Your task to perform on an android device: turn off airplane mode Image 0: 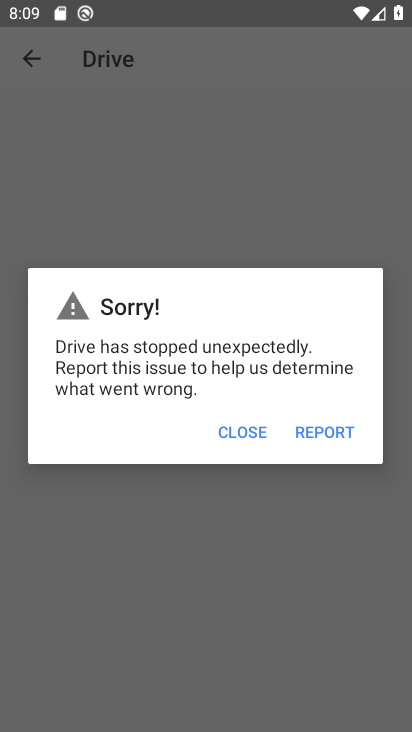
Step 0: press home button
Your task to perform on an android device: turn off airplane mode Image 1: 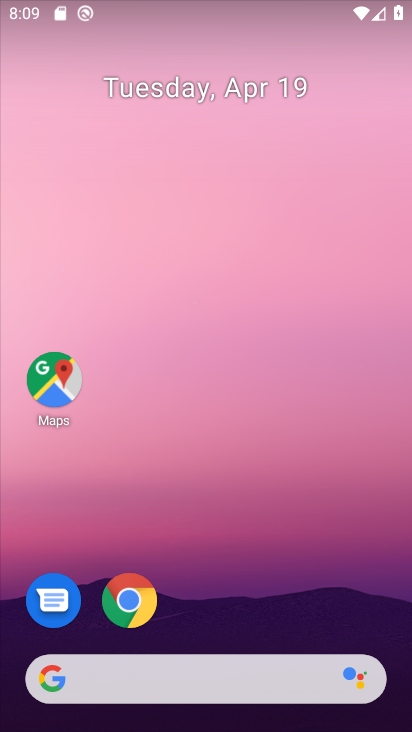
Step 1: drag from (368, 596) to (339, 58)
Your task to perform on an android device: turn off airplane mode Image 2: 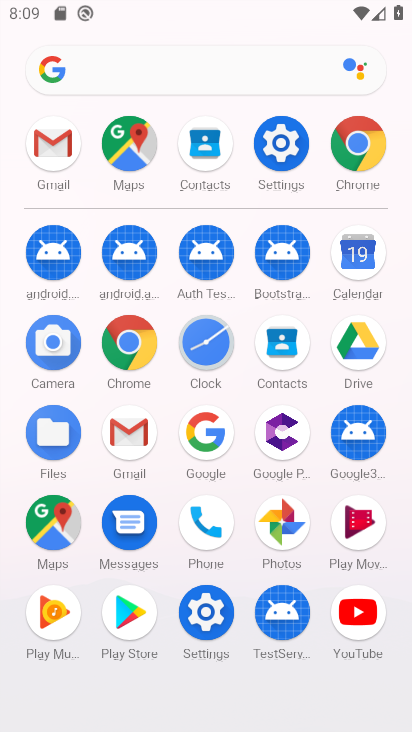
Step 2: click (284, 154)
Your task to perform on an android device: turn off airplane mode Image 3: 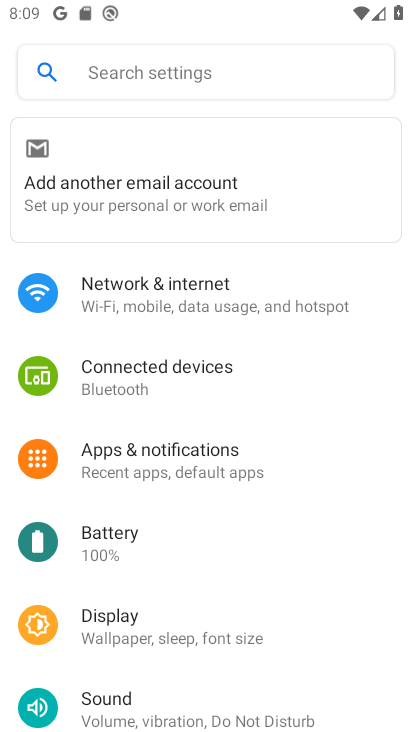
Step 3: drag from (365, 594) to (358, 392)
Your task to perform on an android device: turn off airplane mode Image 4: 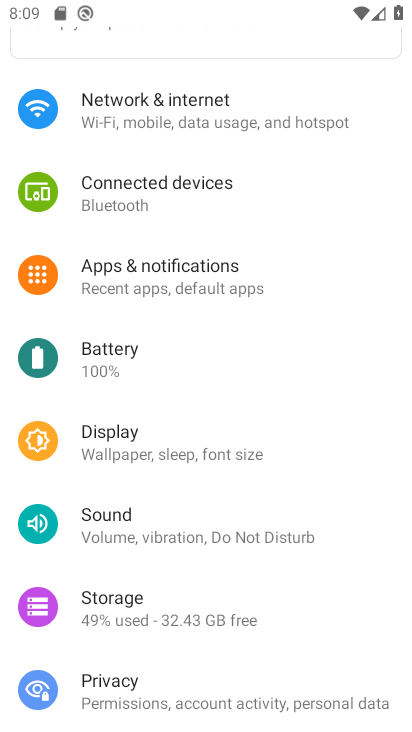
Step 4: drag from (361, 548) to (363, 375)
Your task to perform on an android device: turn off airplane mode Image 5: 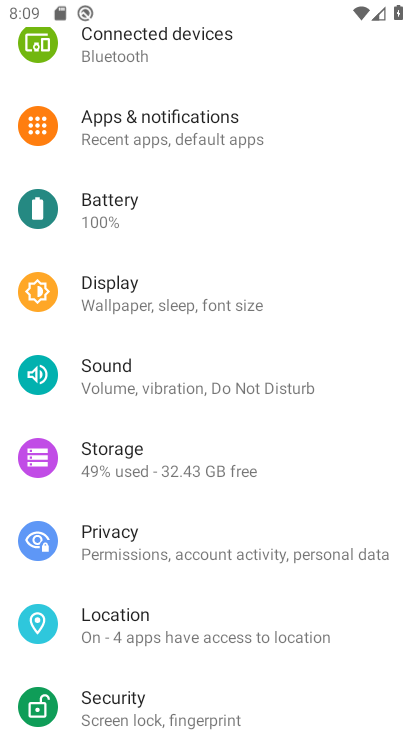
Step 5: drag from (361, 524) to (368, 342)
Your task to perform on an android device: turn off airplane mode Image 6: 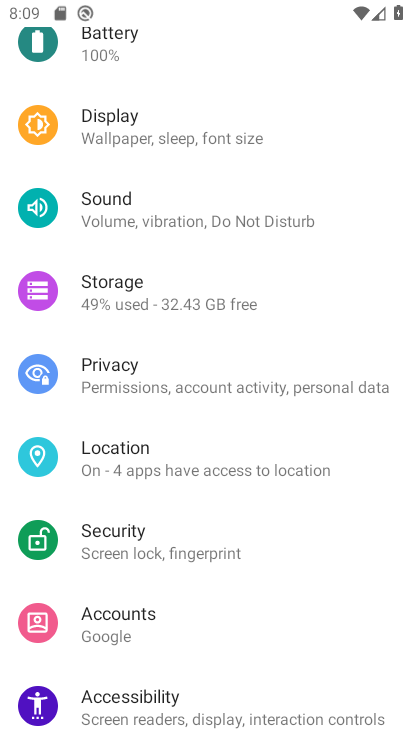
Step 6: drag from (371, 603) to (373, 334)
Your task to perform on an android device: turn off airplane mode Image 7: 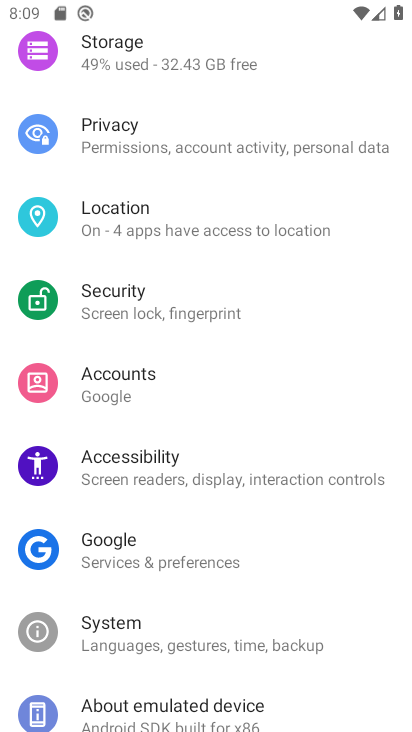
Step 7: drag from (375, 408) to (372, 586)
Your task to perform on an android device: turn off airplane mode Image 8: 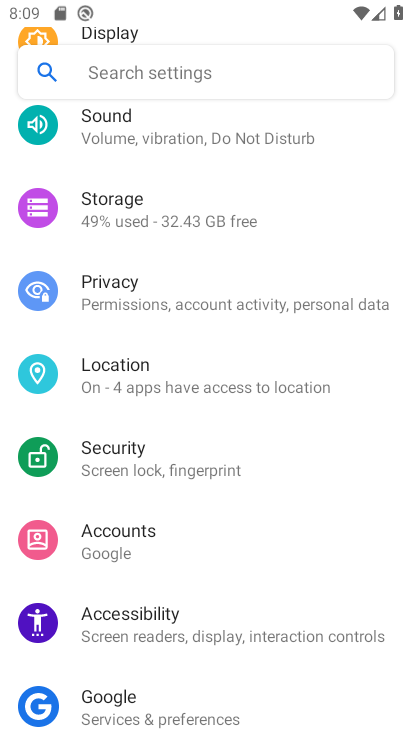
Step 8: drag from (359, 426) to (359, 581)
Your task to perform on an android device: turn off airplane mode Image 9: 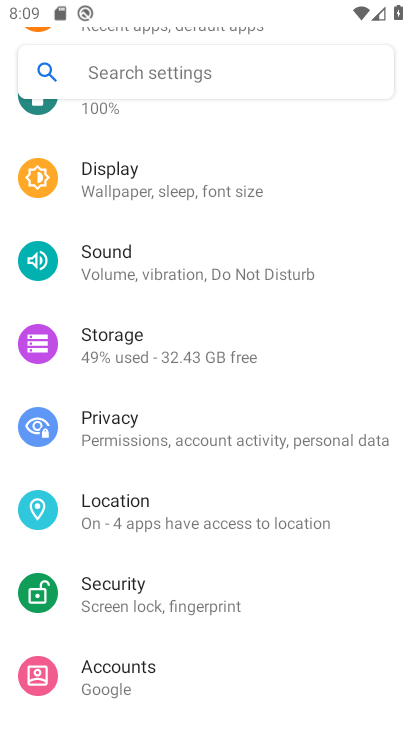
Step 9: drag from (367, 317) to (364, 565)
Your task to perform on an android device: turn off airplane mode Image 10: 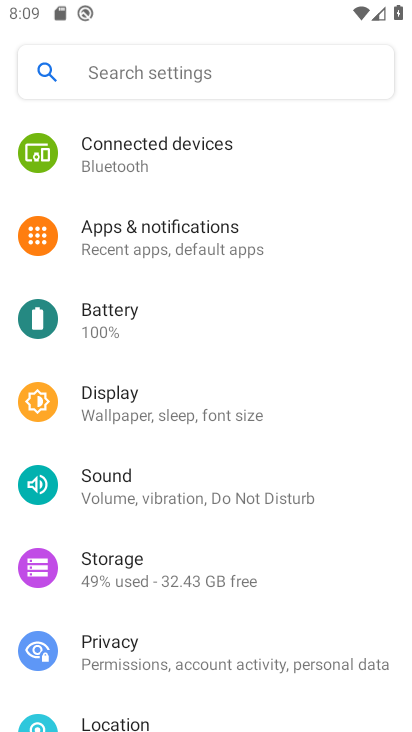
Step 10: drag from (362, 293) to (372, 532)
Your task to perform on an android device: turn off airplane mode Image 11: 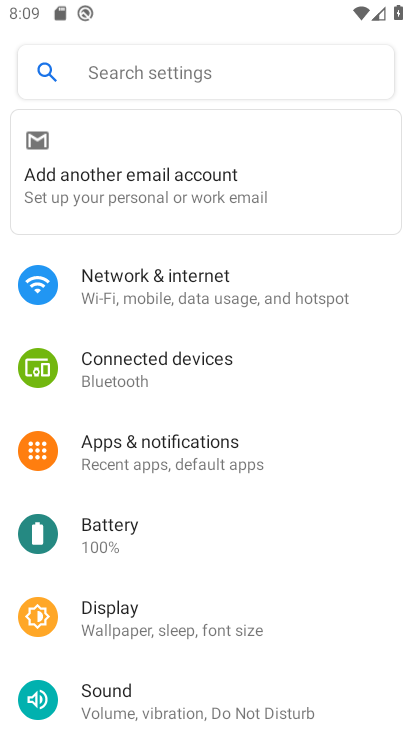
Step 11: click (231, 281)
Your task to perform on an android device: turn off airplane mode Image 12: 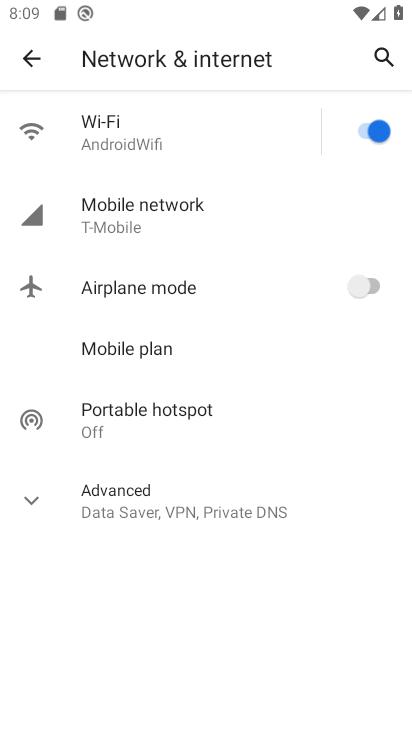
Step 12: task complete